Your task to perform on an android device: Go to Wikipedia Image 0: 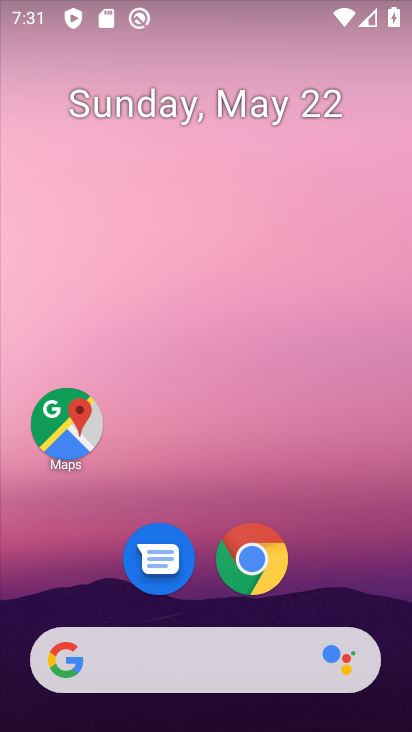
Step 0: click (252, 544)
Your task to perform on an android device: Go to Wikipedia Image 1: 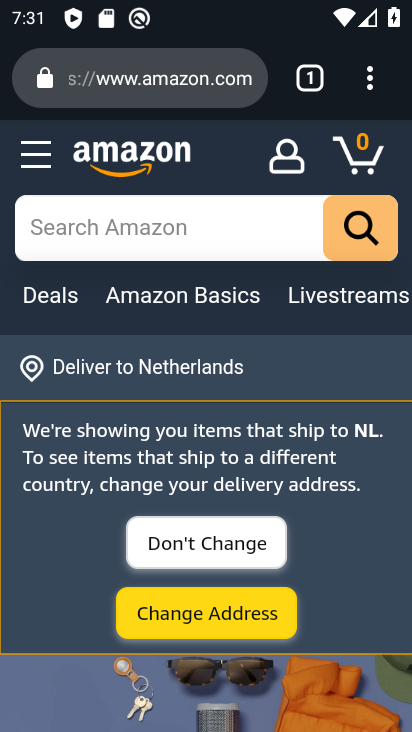
Step 1: click (367, 80)
Your task to perform on an android device: Go to Wikipedia Image 2: 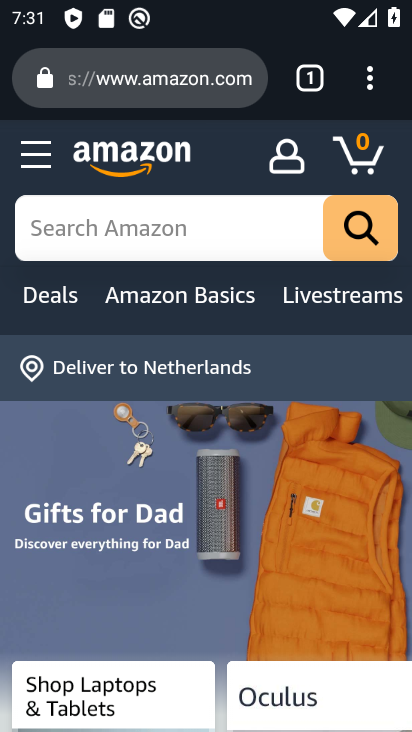
Step 2: click (365, 80)
Your task to perform on an android device: Go to Wikipedia Image 3: 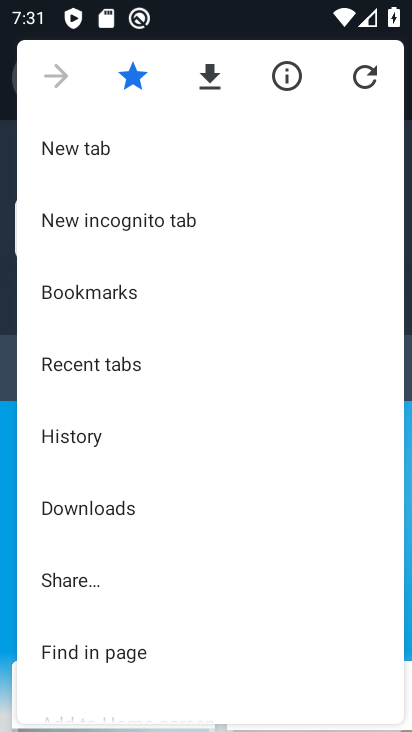
Step 3: click (185, 156)
Your task to perform on an android device: Go to Wikipedia Image 4: 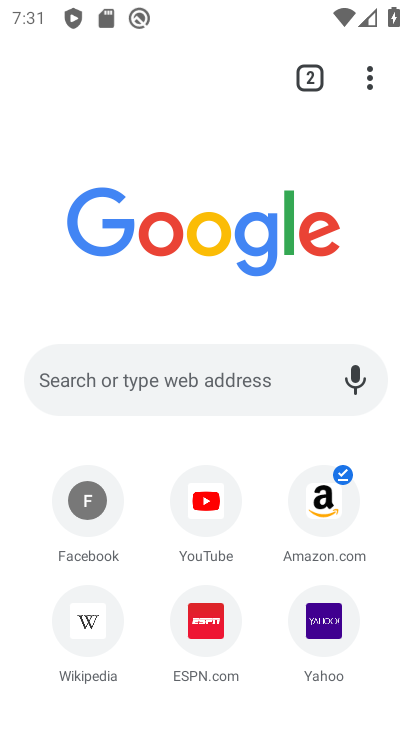
Step 4: click (90, 620)
Your task to perform on an android device: Go to Wikipedia Image 5: 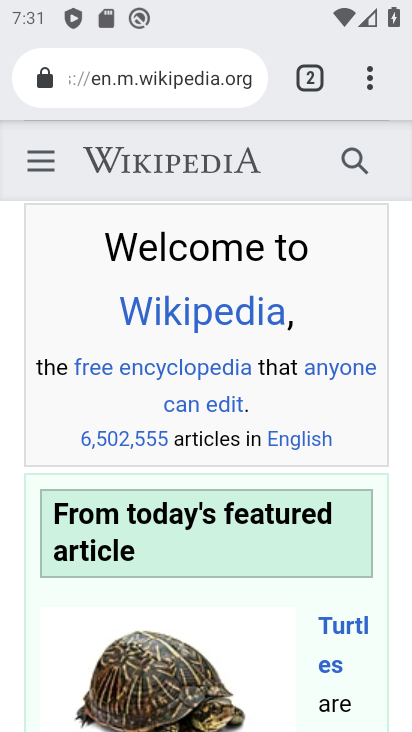
Step 5: task complete